Your task to perform on an android device: Go to privacy settings Image 0: 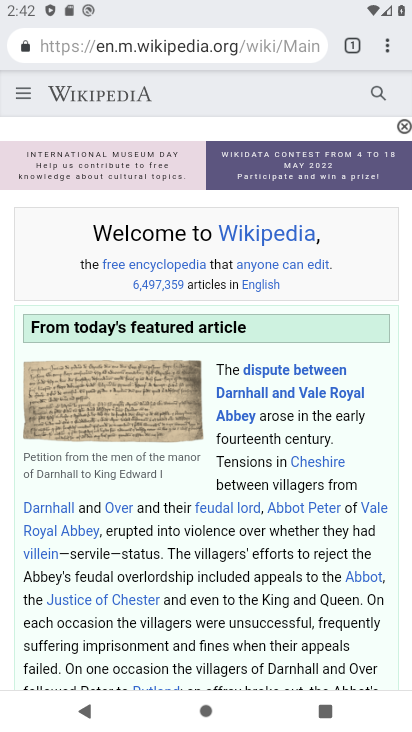
Step 0: press home button
Your task to perform on an android device: Go to privacy settings Image 1: 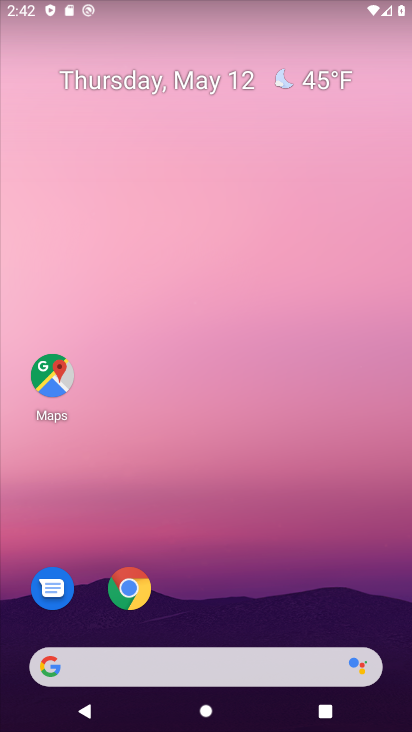
Step 1: drag from (263, 620) to (285, 71)
Your task to perform on an android device: Go to privacy settings Image 2: 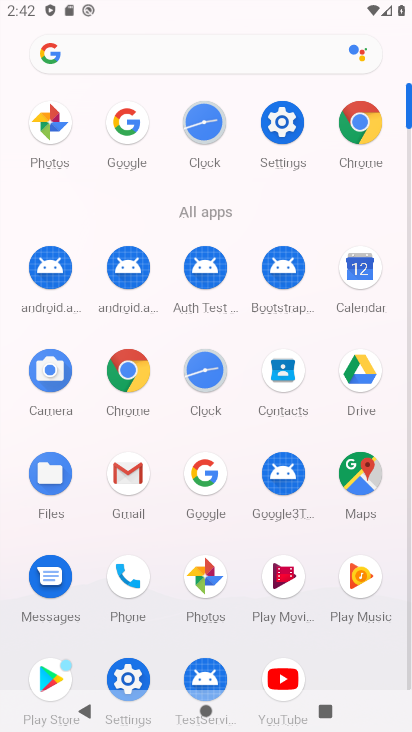
Step 2: click (279, 127)
Your task to perform on an android device: Go to privacy settings Image 3: 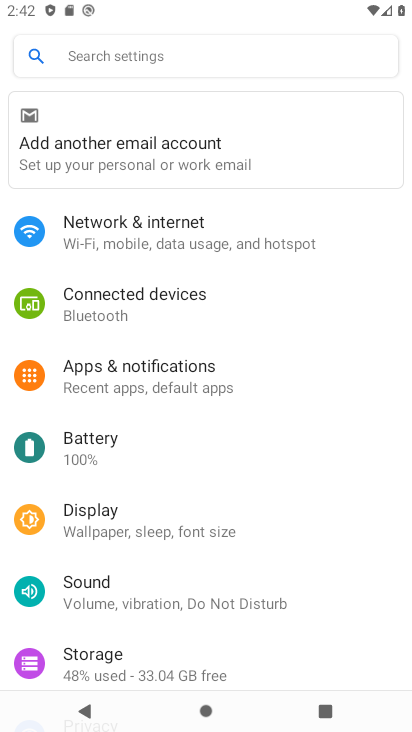
Step 3: drag from (125, 648) to (130, 274)
Your task to perform on an android device: Go to privacy settings Image 4: 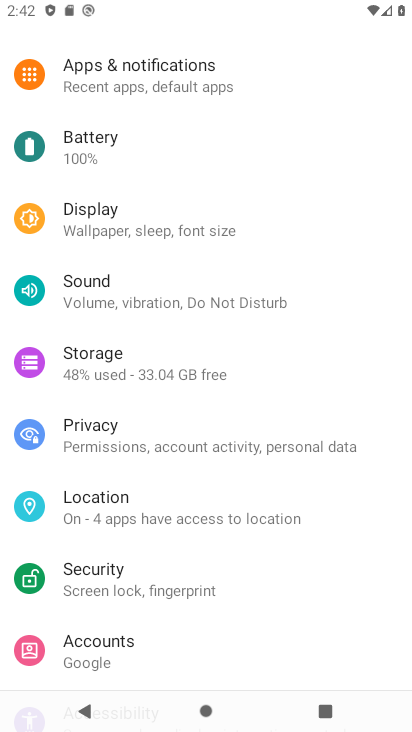
Step 4: click (107, 445)
Your task to perform on an android device: Go to privacy settings Image 5: 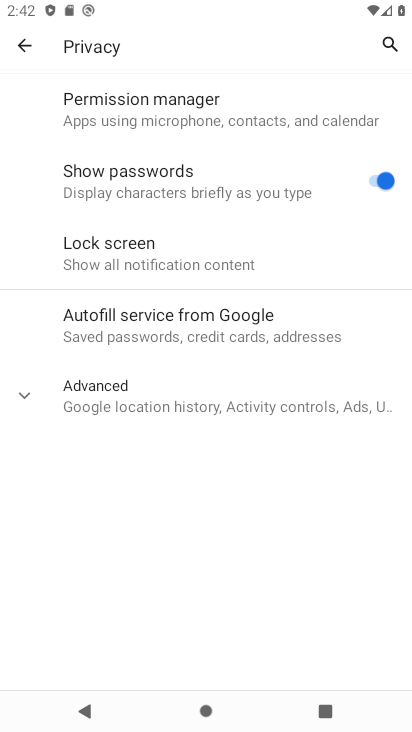
Step 5: task complete